Your task to perform on an android device: Open network settings Image 0: 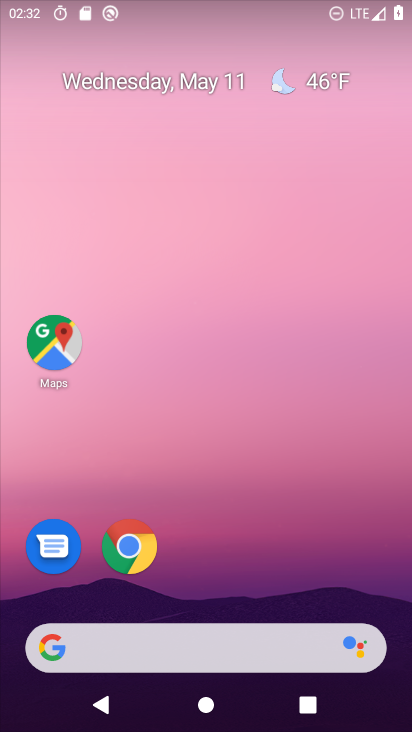
Step 0: drag from (265, 666) to (250, 154)
Your task to perform on an android device: Open network settings Image 1: 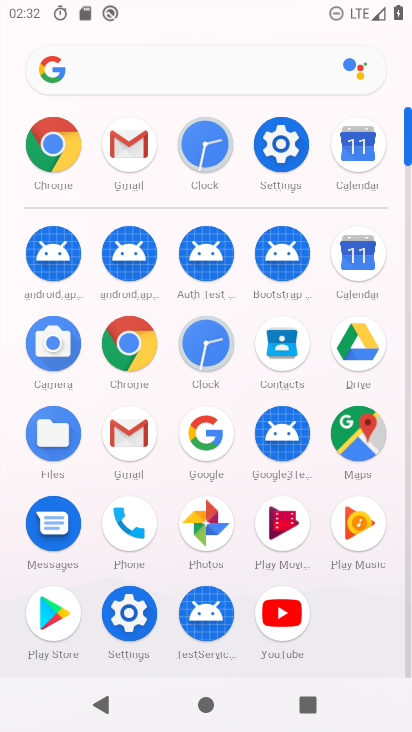
Step 1: click (284, 143)
Your task to perform on an android device: Open network settings Image 2: 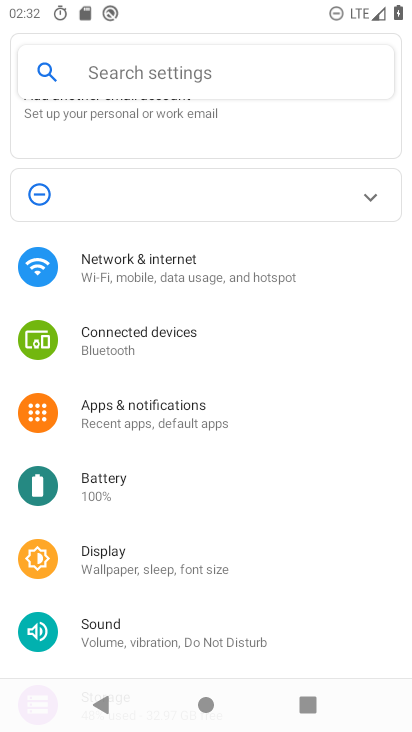
Step 2: click (163, 271)
Your task to perform on an android device: Open network settings Image 3: 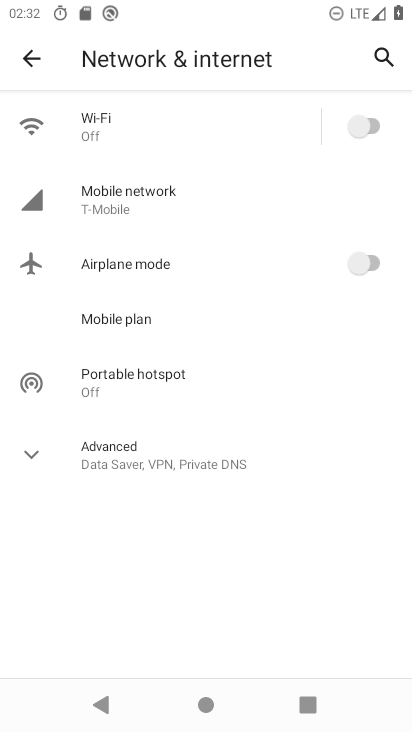
Step 3: click (169, 202)
Your task to perform on an android device: Open network settings Image 4: 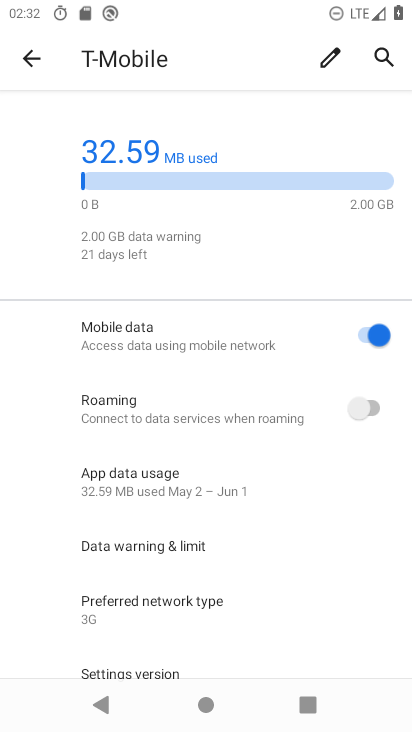
Step 4: task complete